Your task to perform on an android device: Clear the shopping cart on costco.com. Image 0: 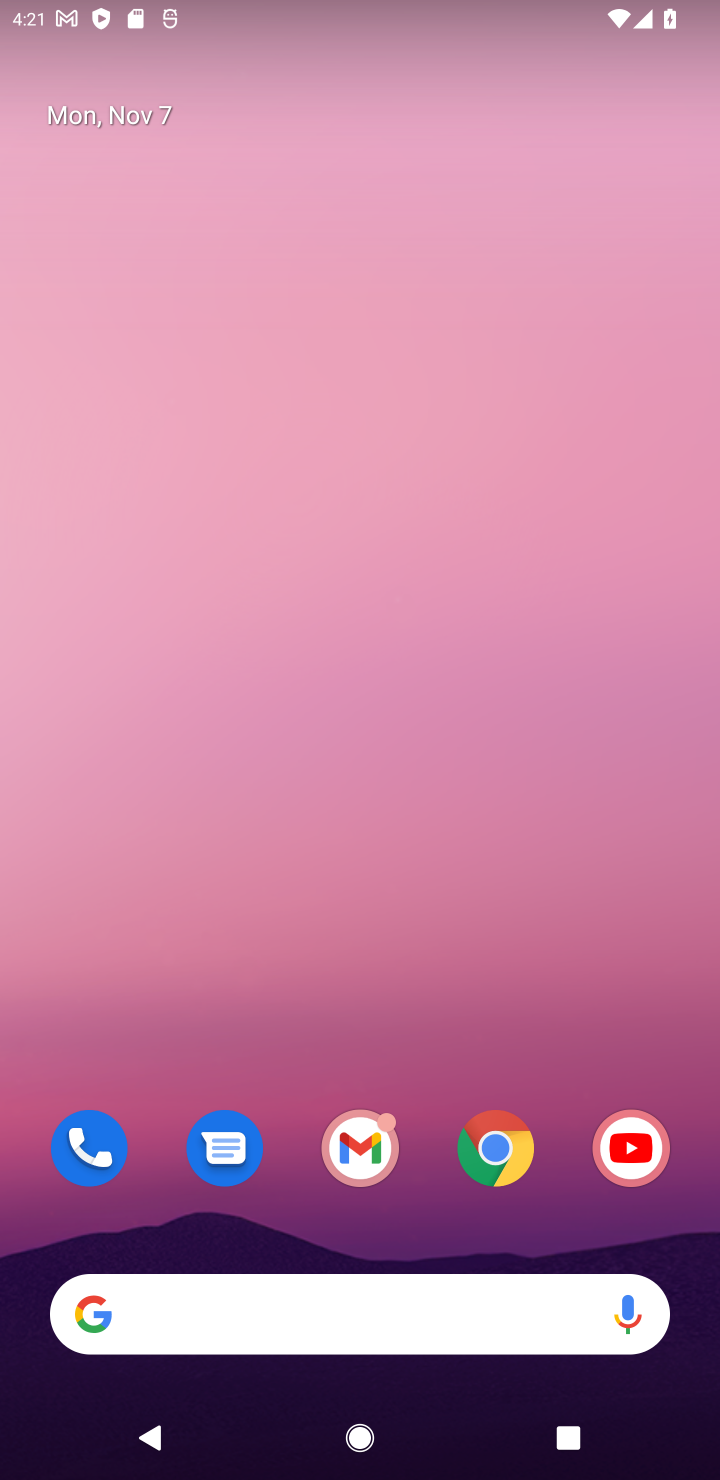
Step 0: click (493, 1158)
Your task to perform on an android device: Clear the shopping cart on costco.com. Image 1: 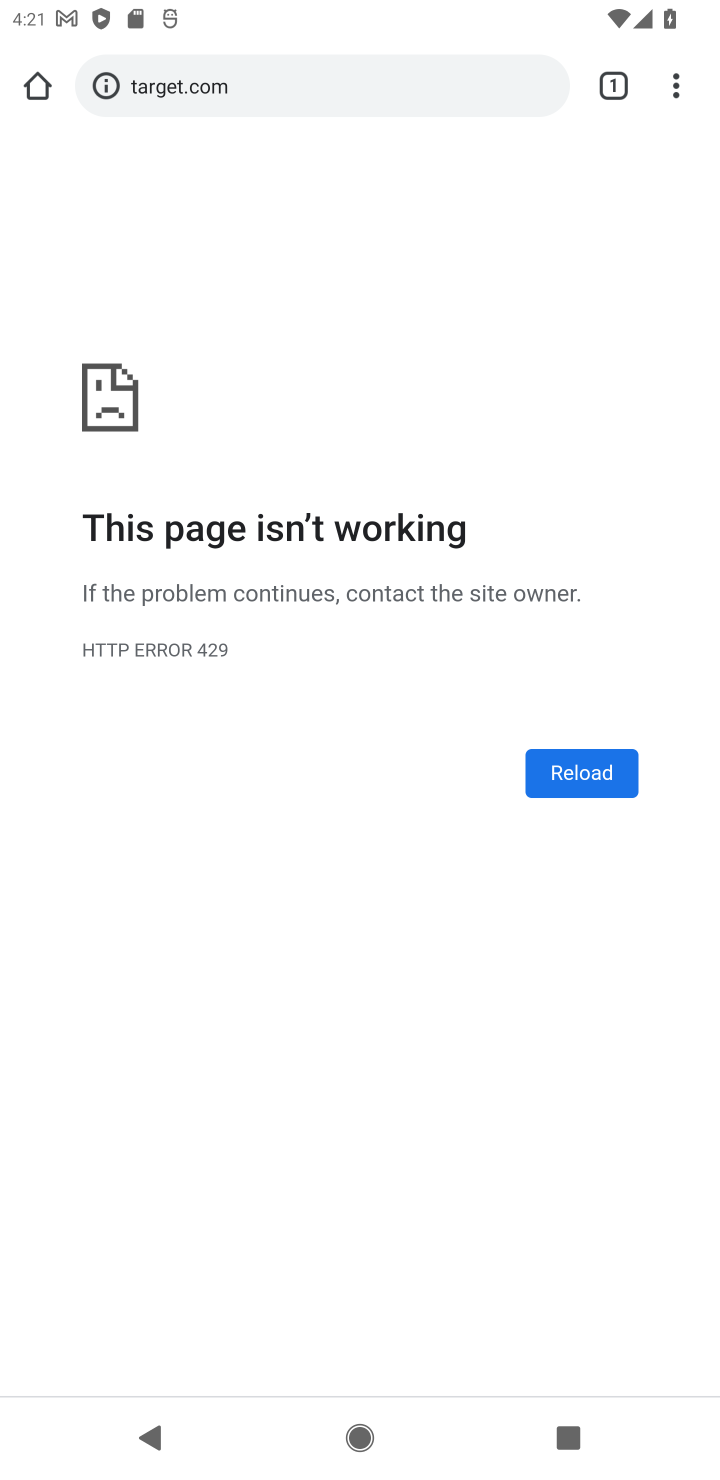
Step 1: click (312, 65)
Your task to perform on an android device: Clear the shopping cart on costco.com. Image 2: 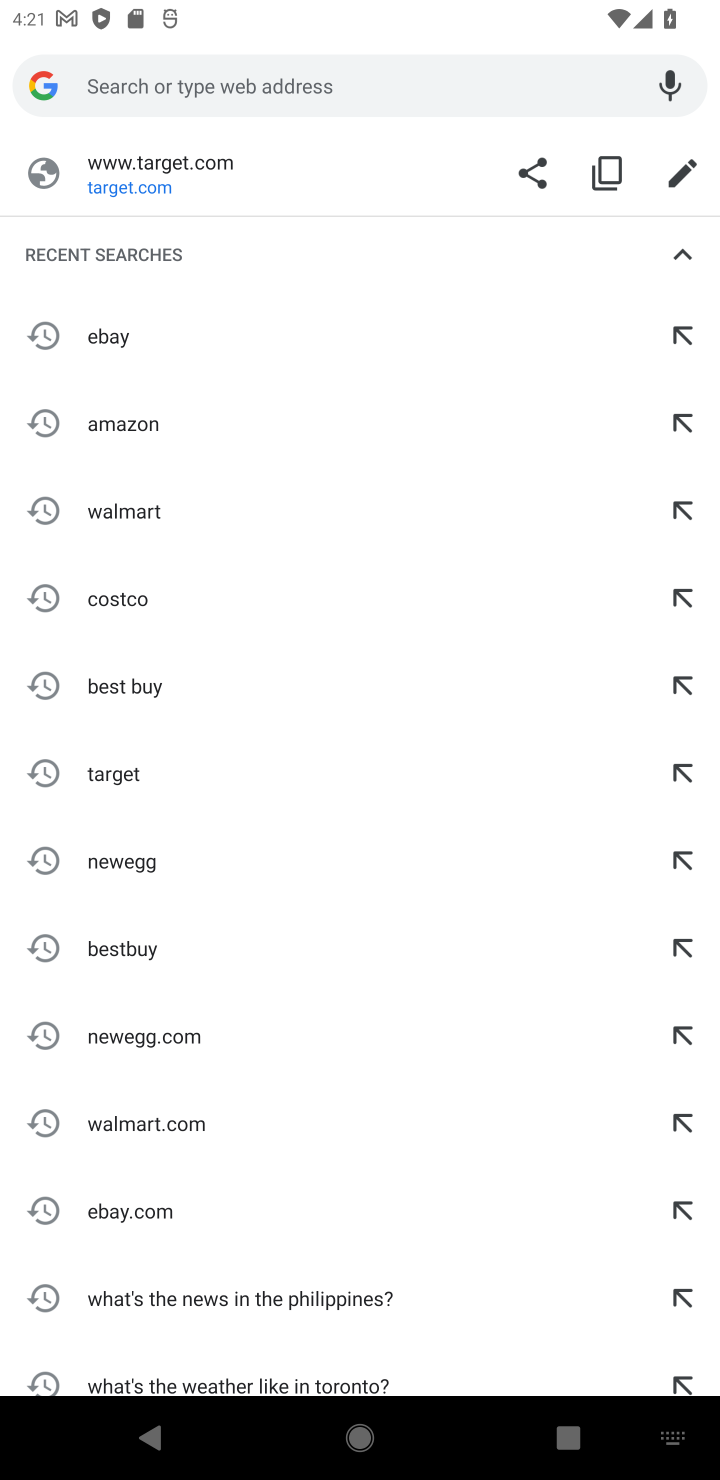
Step 2: type "costco.com"
Your task to perform on an android device: Clear the shopping cart on costco.com. Image 3: 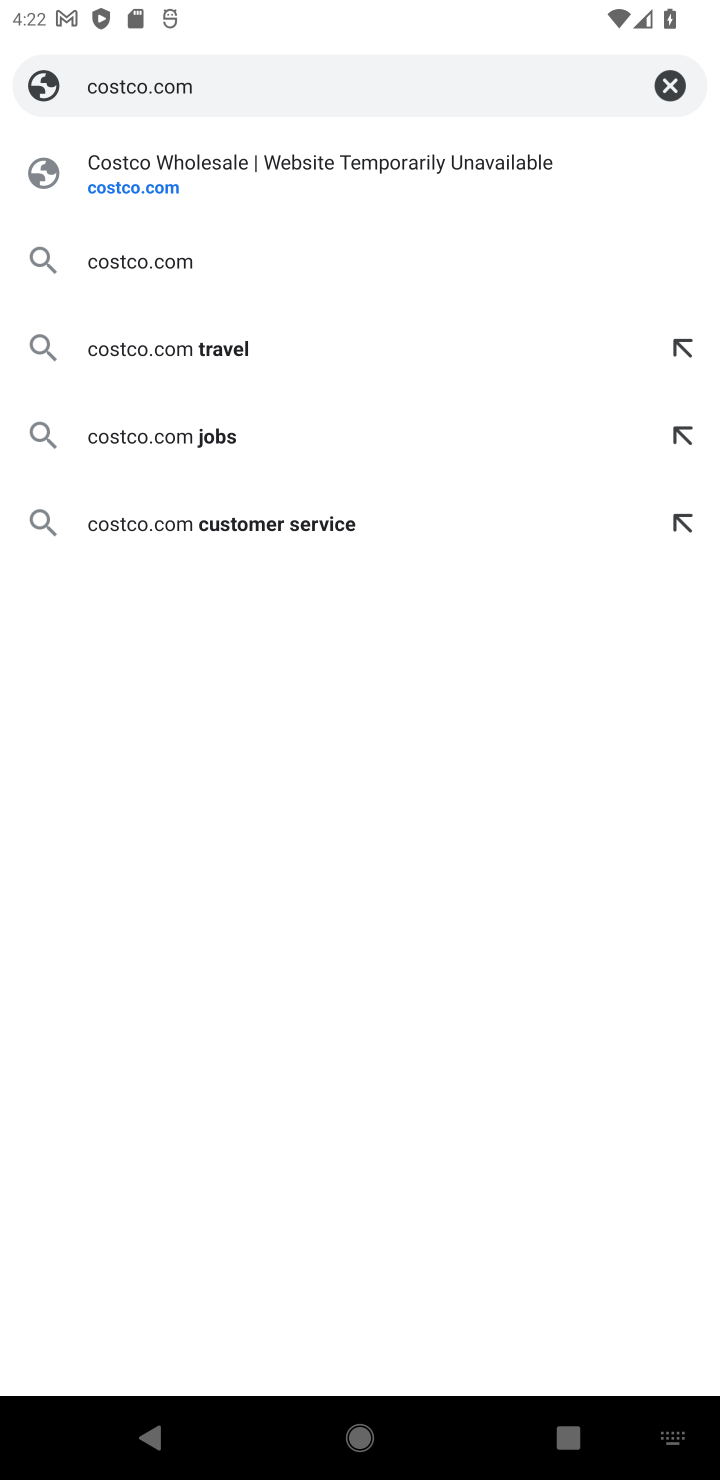
Step 3: click (143, 171)
Your task to perform on an android device: Clear the shopping cart on costco.com. Image 4: 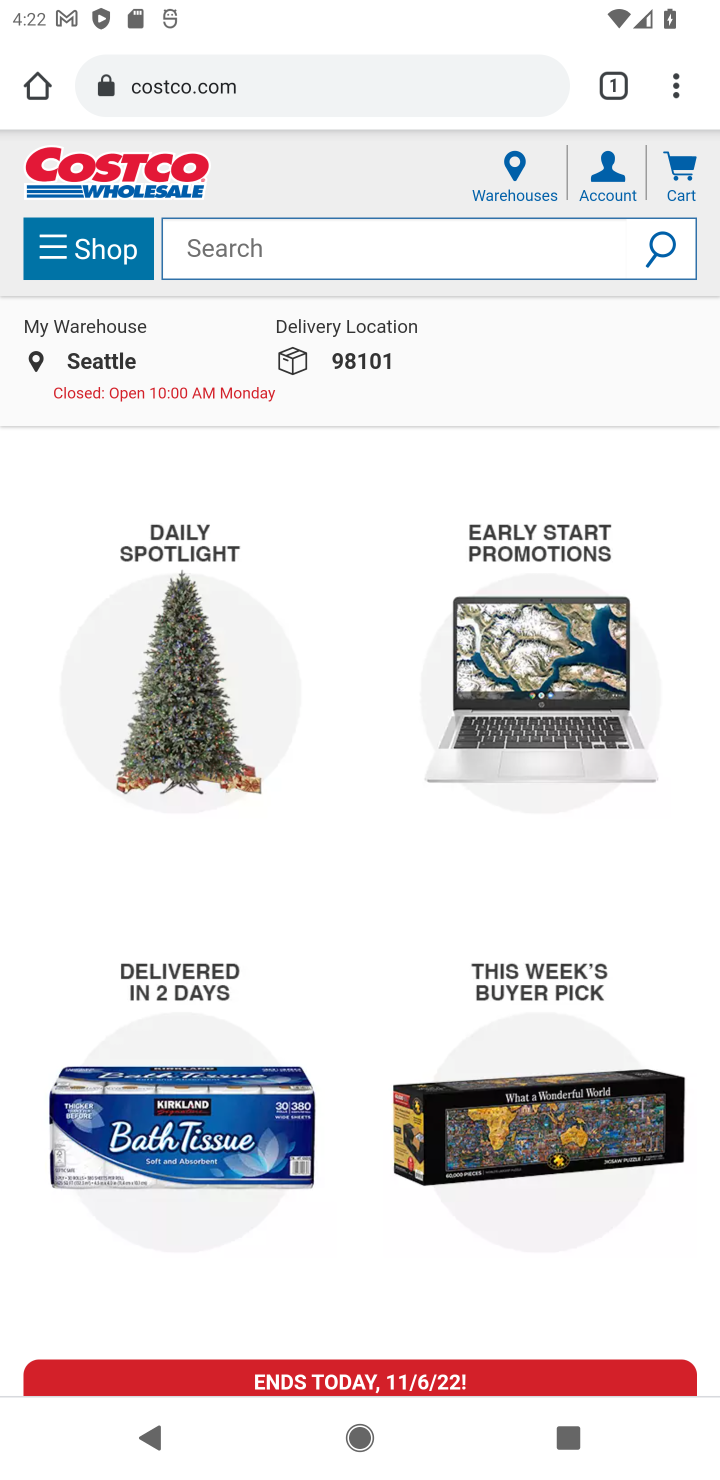
Step 4: click (677, 161)
Your task to perform on an android device: Clear the shopping cart on costco.com. Image 5: 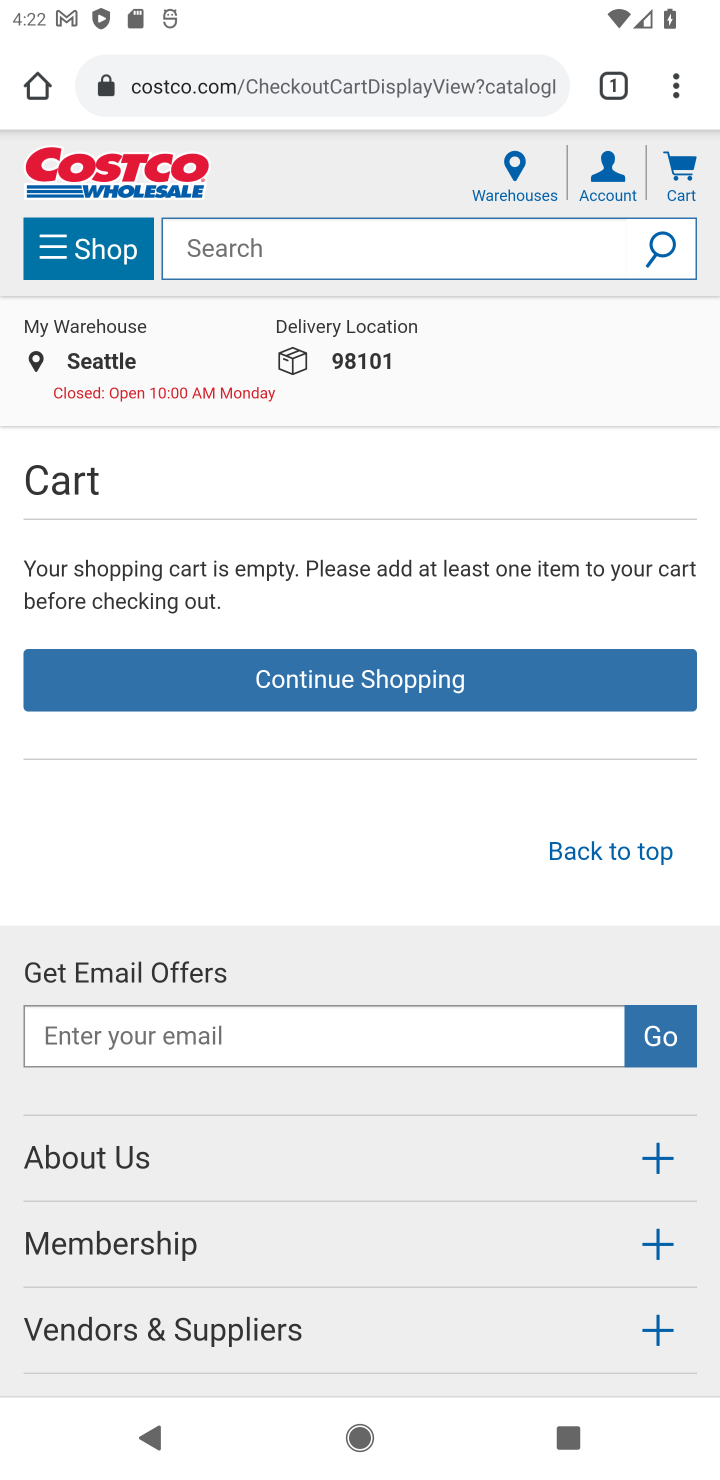
Step 5: task complete